Your task to perform on an android device: toggle airplane mode Image 0: 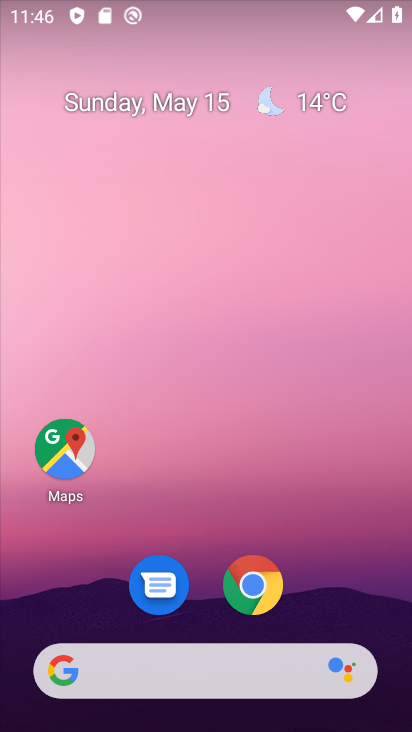
Step 0: drag from (175, 469) to (200, 41)
Your task to perform on an android device: toggle airplane mode Image 1: 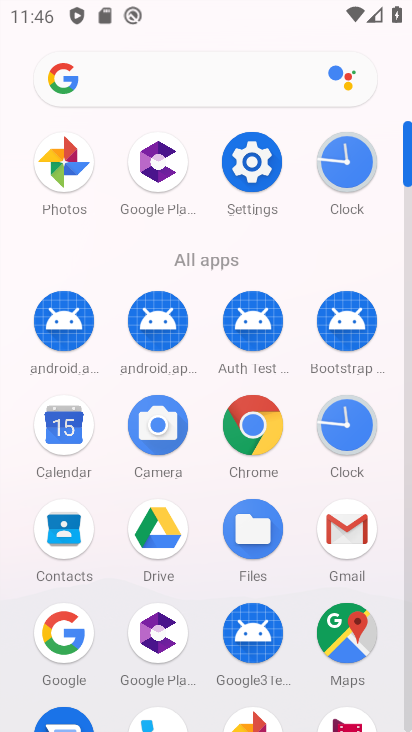
Step 1: click (248, 163)
Your task to perform on an android device: toggle airplane mode Image 2: 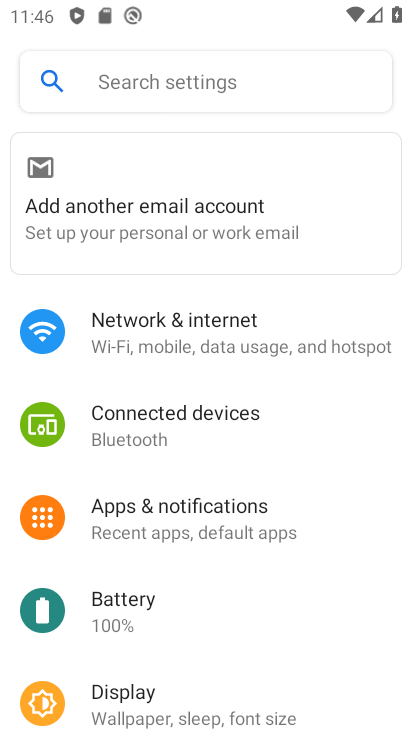
Step 2: click (243, 325)
Your task to perform on an android device: toggle airplane mode Image 3: 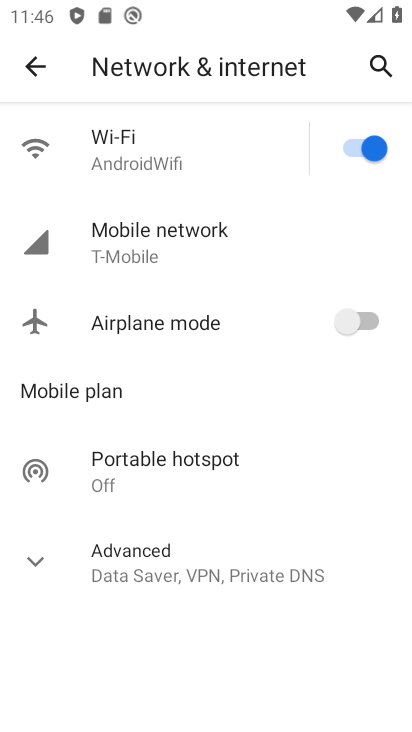
Step 3: click (355, 321)
Your task to perform on an android device: toggle airplane mode Image 4: 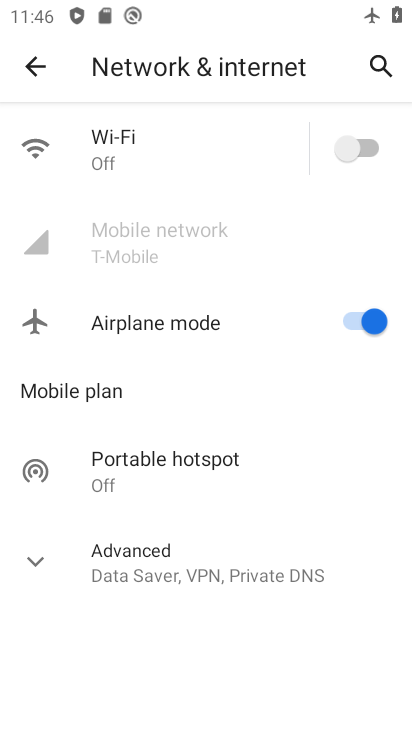
Step 4: task complete